Your task to perform on an android device: Go to Google maps Image 0: 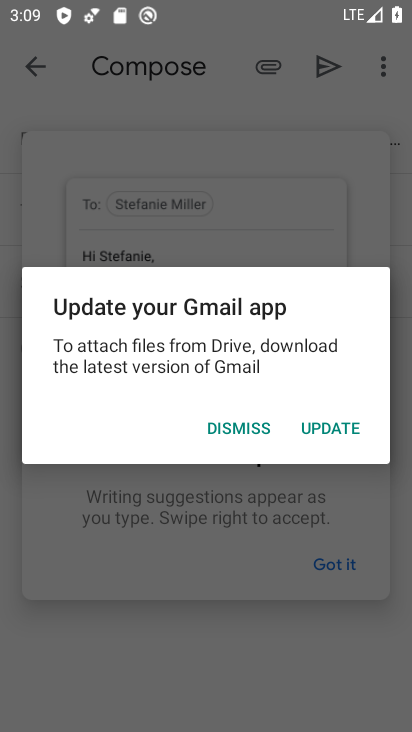
Step 0: press home button
Your task to perform on an android device: Go to Google maps Image 1: 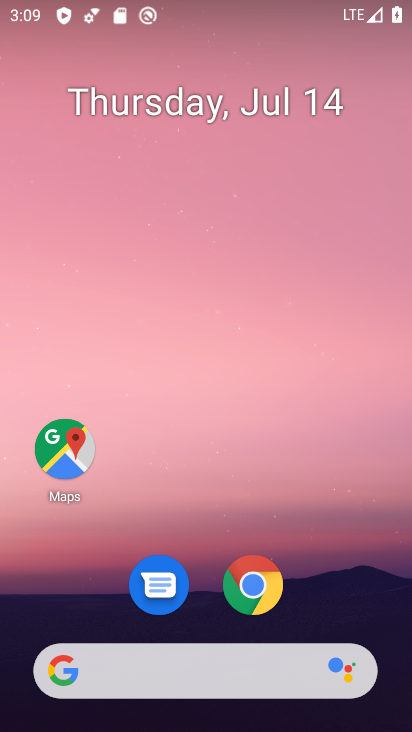
Step 1: click (50, 443)
Your task to perform on an android device: Go to Google maps Image 2: 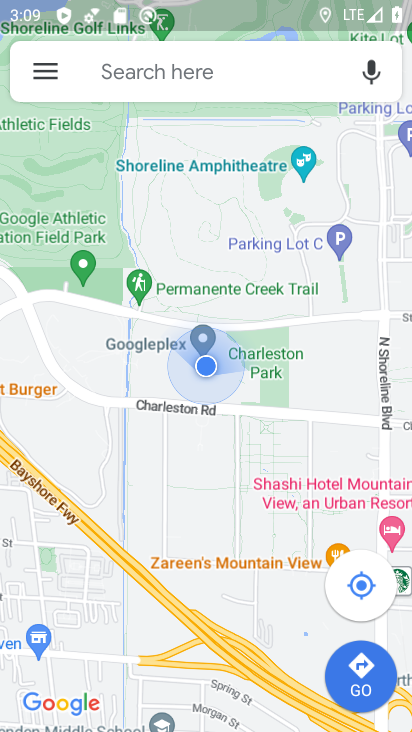
Step 2: task complete